Your task to perform on an android device: turn off data saver in the chrome app Image 0: 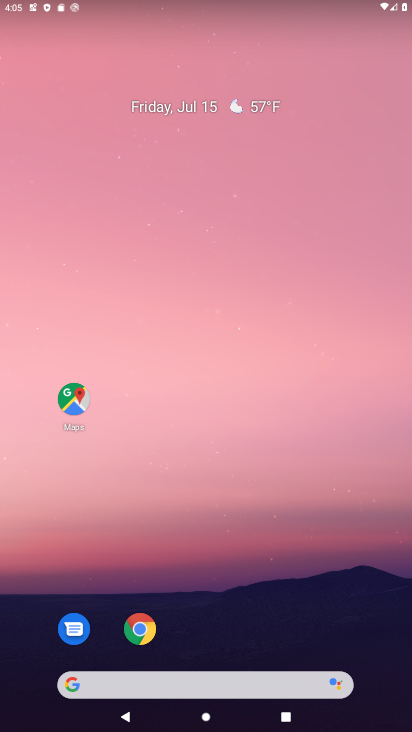
Step 0: press home button
Your task to perform on an android device: turn off data saver in the chrome app Image 1: 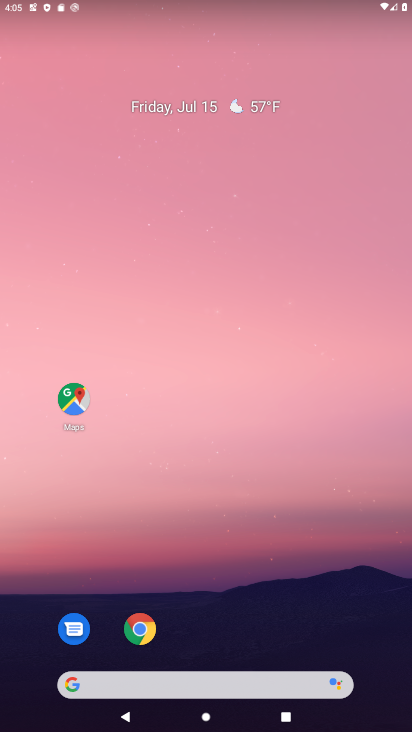
Step 1: click (149, 622)
Your task to perform on an android device: turn off data saver in the chrome app Image 2: 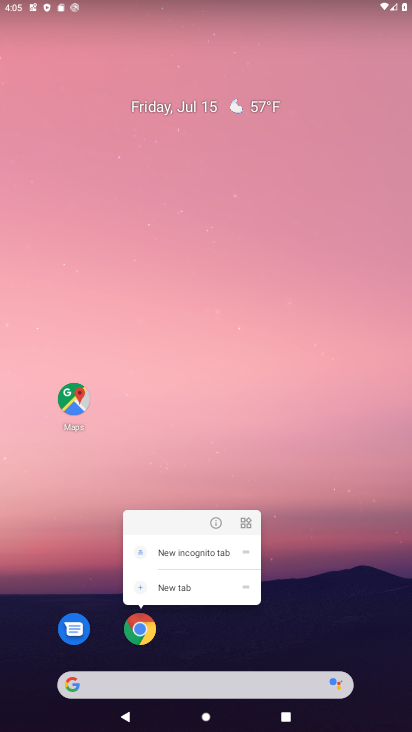
Step 2: click (155, 625)
Your task to perform on an android device: turn off data saver in the chrome app Image 3: 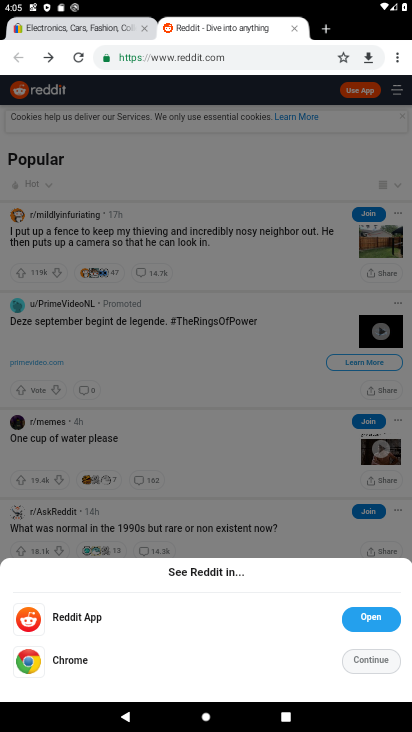
Step 3: drag from (391, 60) to (289, 374)
Your task to perform on an android device: turn off data saver in the chrome app Image 4: 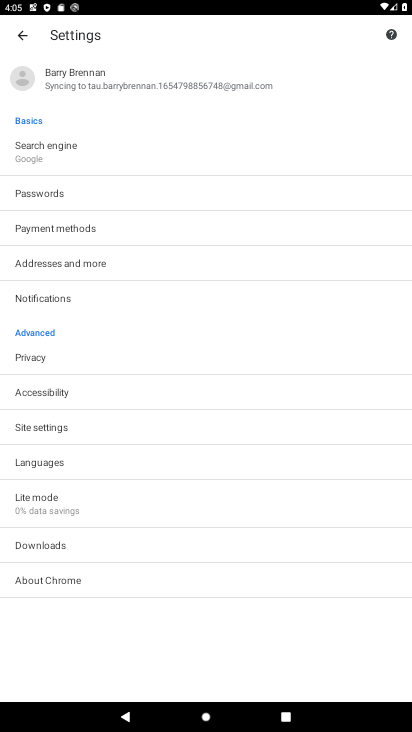
Step 4: click (44, 503)
Your task to perform on an android device: turn off data saver in the chrome app Image 5: 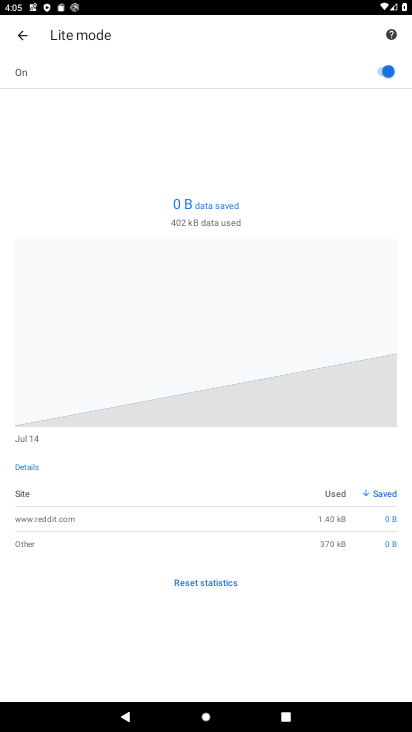
Step 5: task complete